Your task to perform on an android device: Search for flights from NYC to Mexico city Image 0: 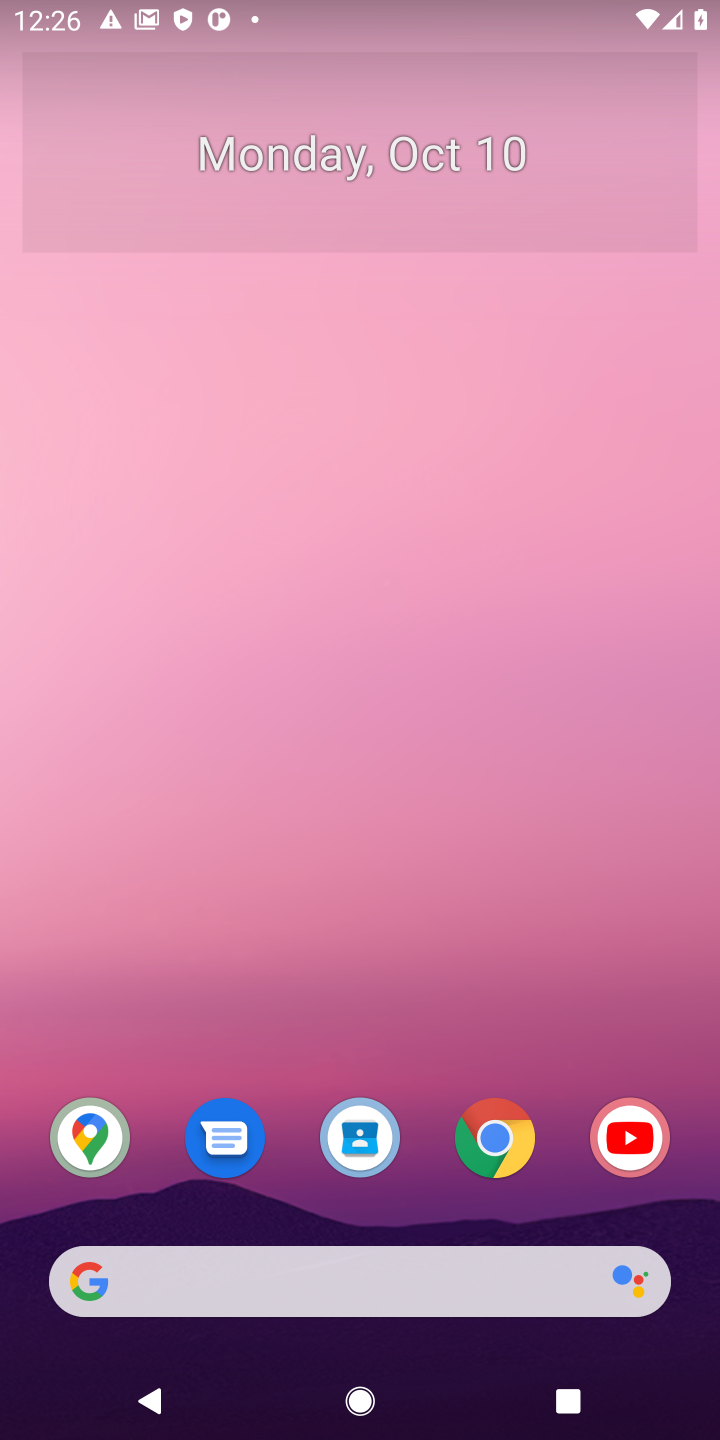
Step 0: click (483, 1154)
Your task to perform on an android device: Search for flights from NYC to Mexico city Image 1: 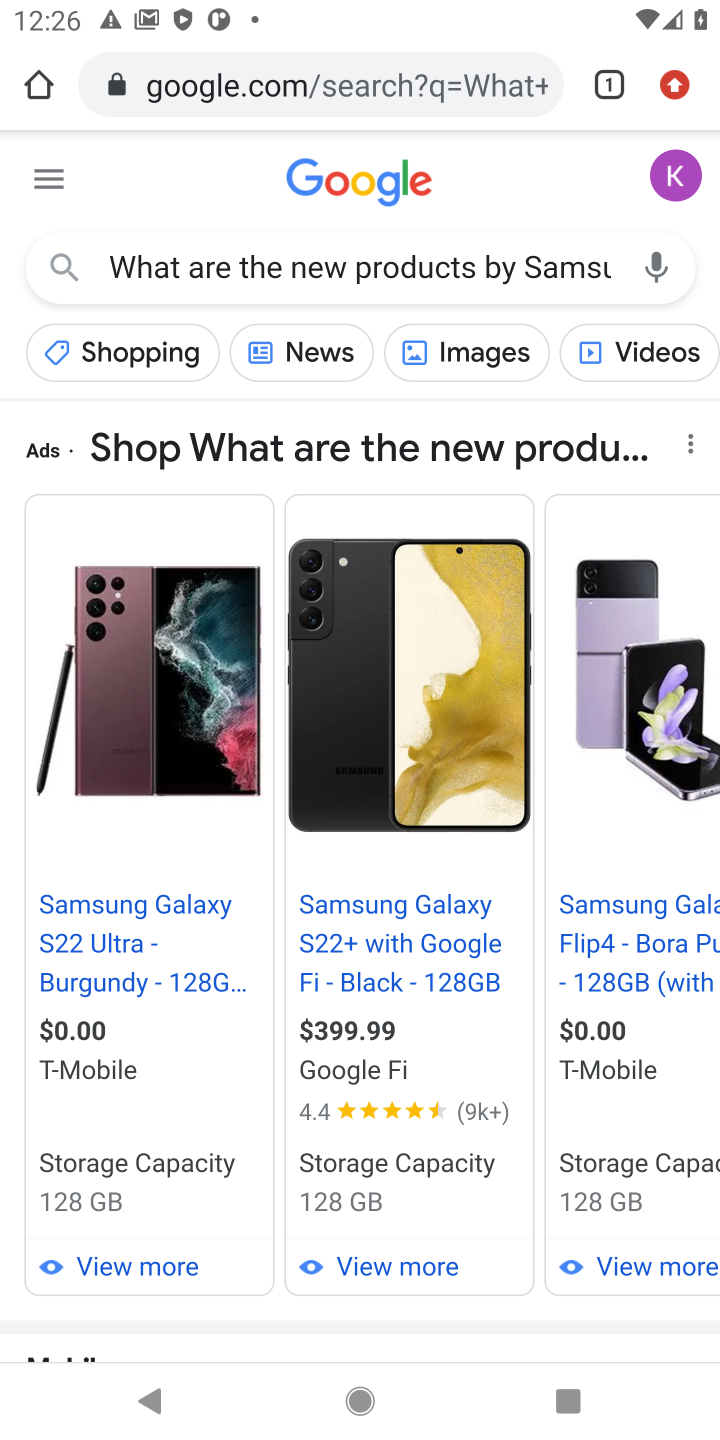
Step 1: click (404, 249)
Your task to perform on an android device: Search for flights from NYC to Mexico city Image 2: 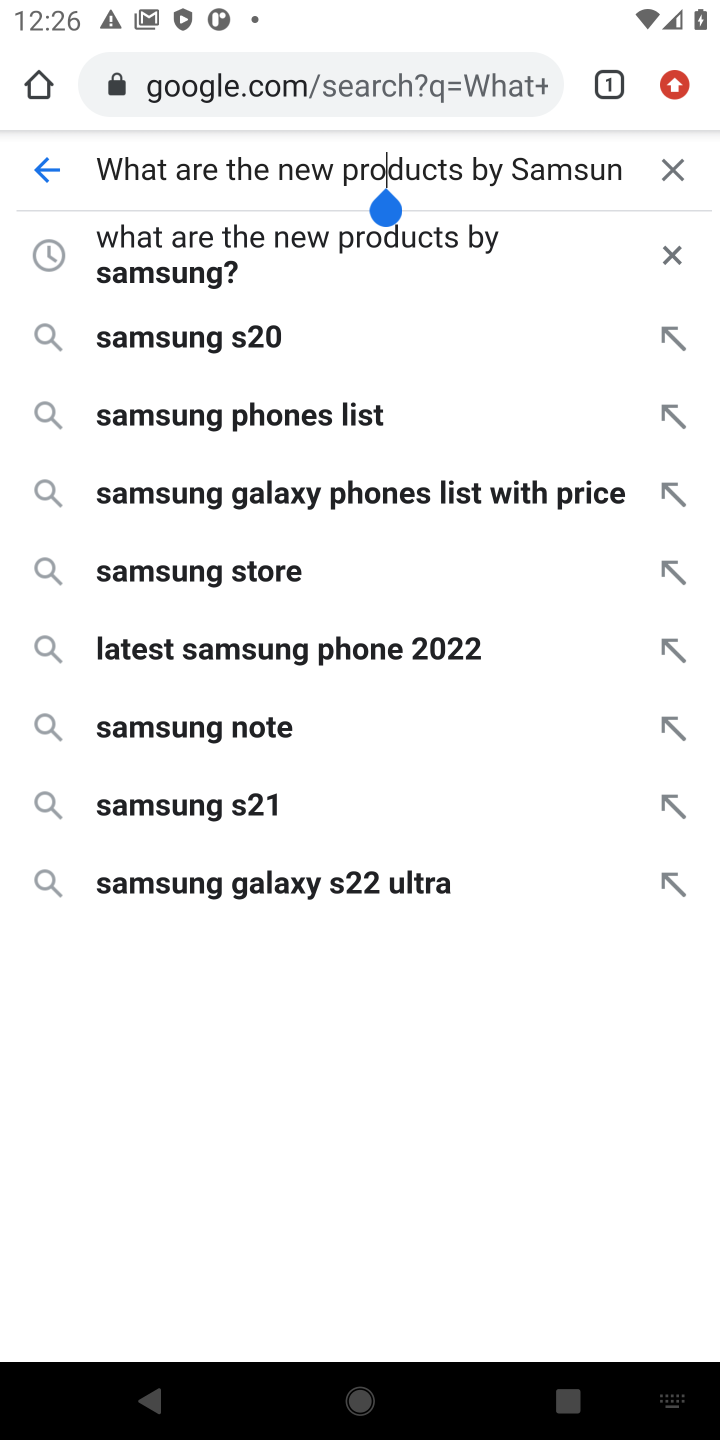
Step 2: click (666, 180)
Your task to perform on an android device: Search for flights from NYC to Mexico city Image 3: 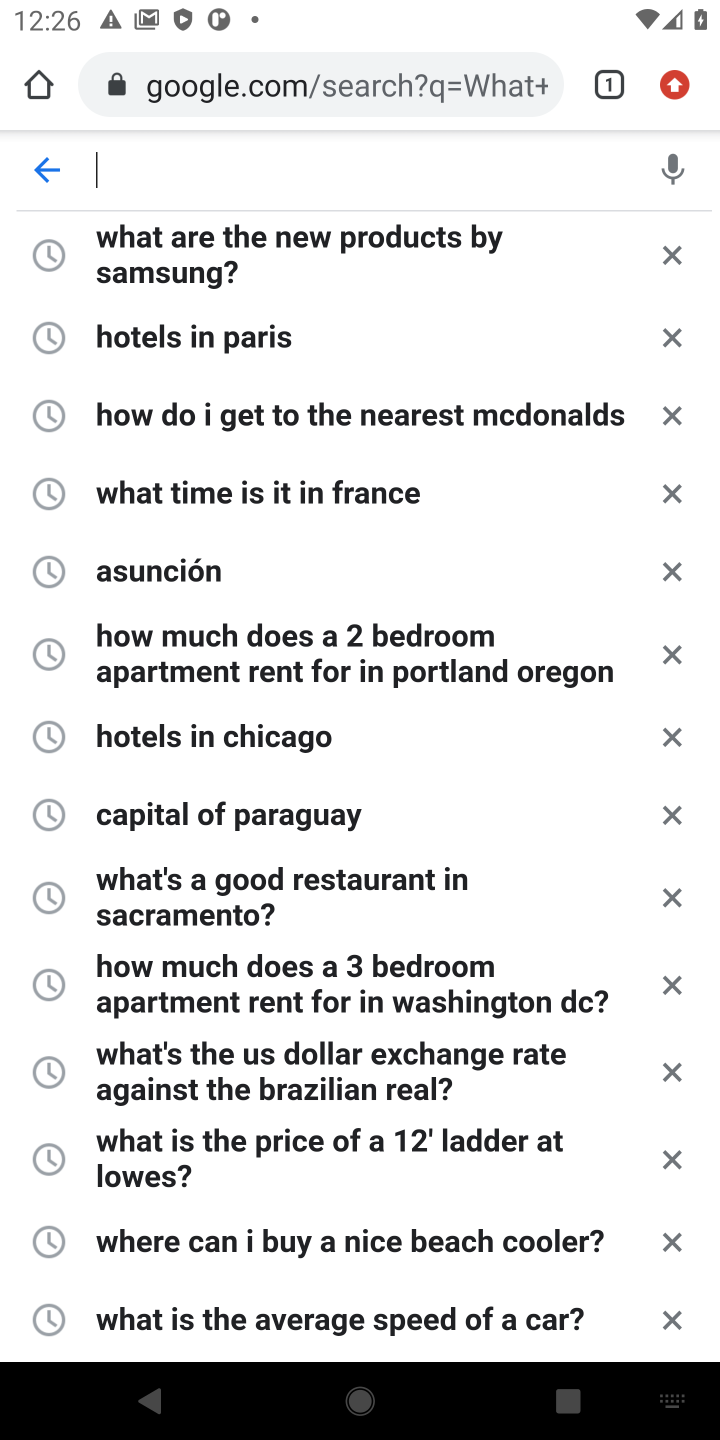
Step 3: type "flights from NYC to Mexico city"
Your task to perform on an android device: Search for flights from NYC to Mexico city Image 4: 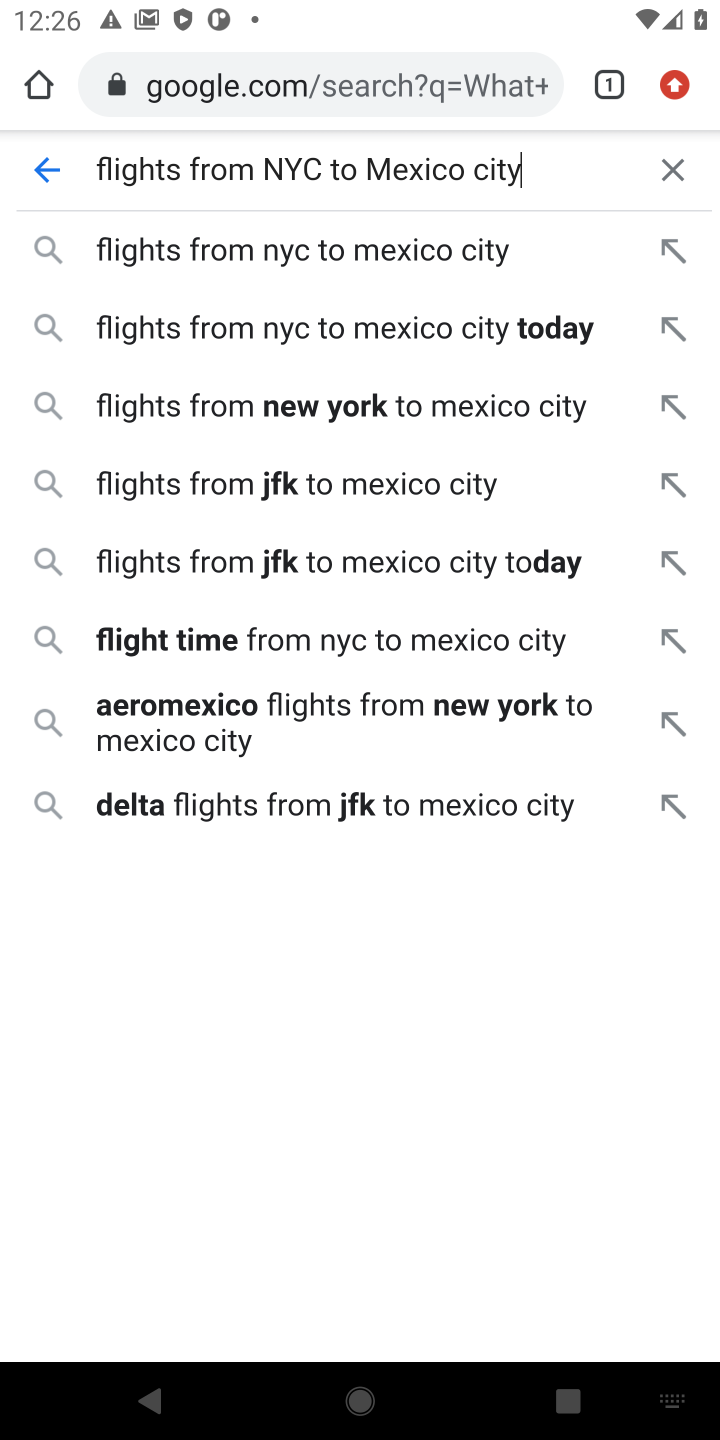
Step 4: press enter
Your task to perform on an android device: Search for flights from NYC to Mexico city Image 5: 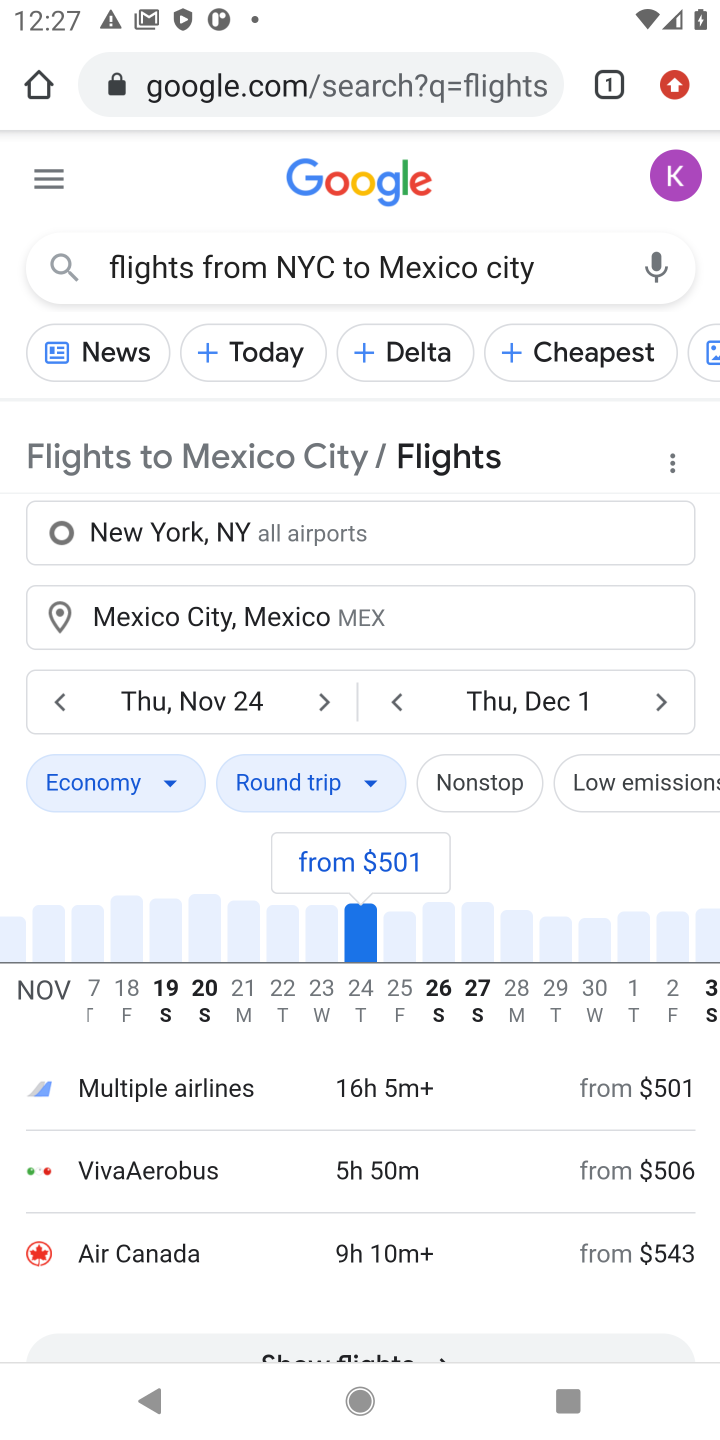
Step 5: task complete